Your task to perform on an android device: change text size in settings app Image 0: 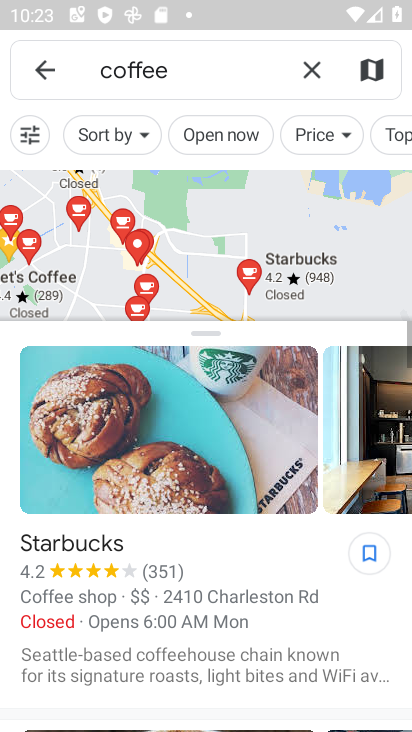
Step 0: press home button
Your task to perform on an android device: change text size in settings app Image 1: 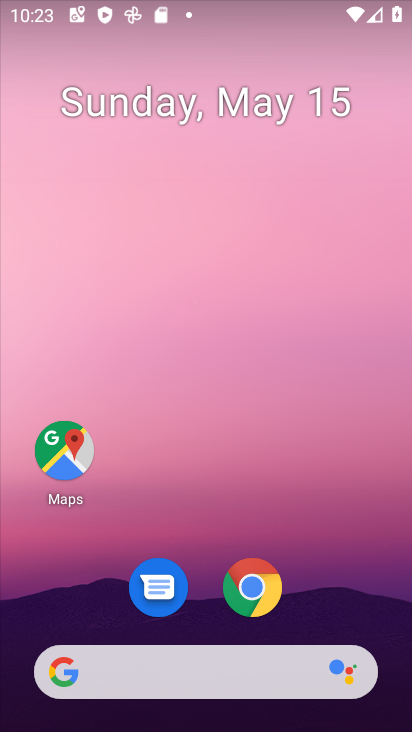
Step 1: drag from (373, 647) to (257, 38)
Your task to perform on an android device: change text size in settings app Image 2: 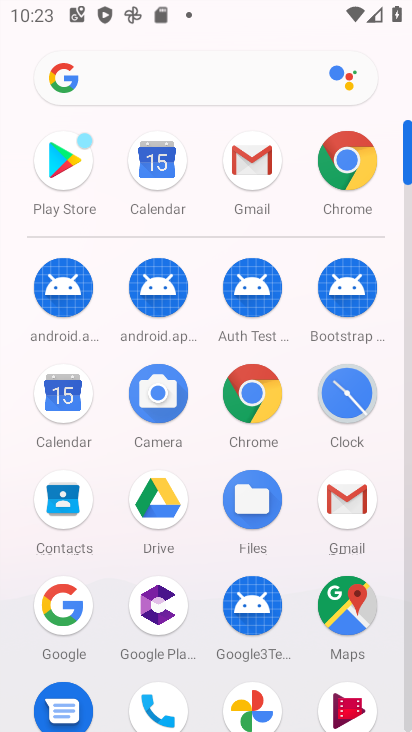
Step 2: drag from (303, 670) to (343, 201)
Your task to perform on an android device: change text size in settings app Image 3: 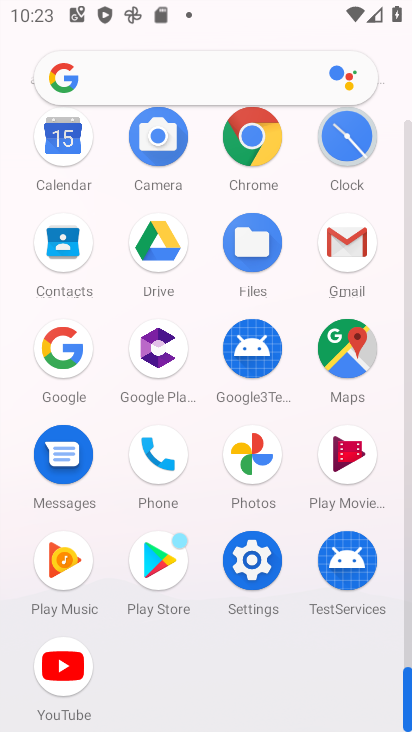
Step 3: click (250, 562)
Your task to perform on an android device: change text size in settings app Image 4: 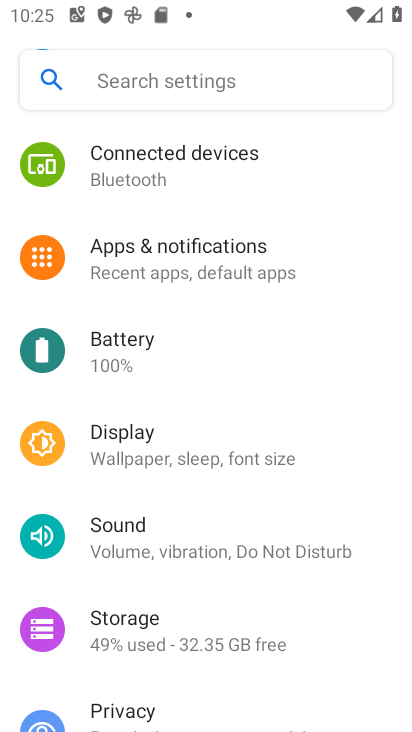
Step 4: click (130, 451)
Your task to perform on an android device: change text size in settings app Image 5: 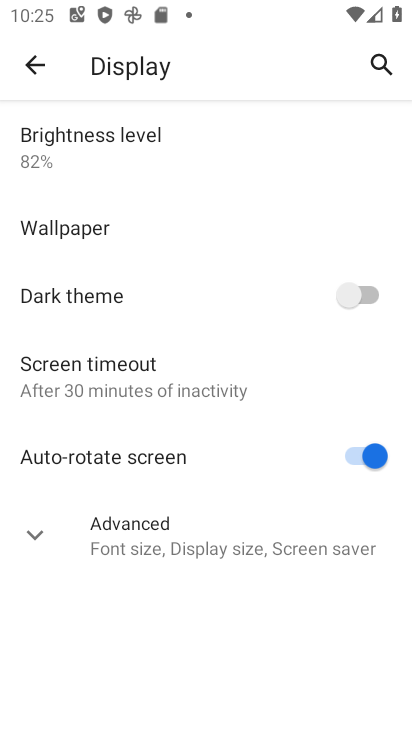
Step 5: click (107, 566)
Your task to perform on an android device: change text size in settings app Image 6: 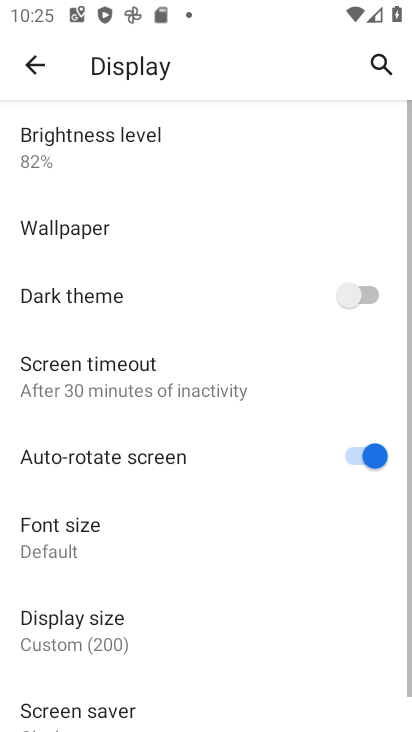
Step 6: click (107, 566)
Your task to perform on an android device: change text size in settings app Image 7: 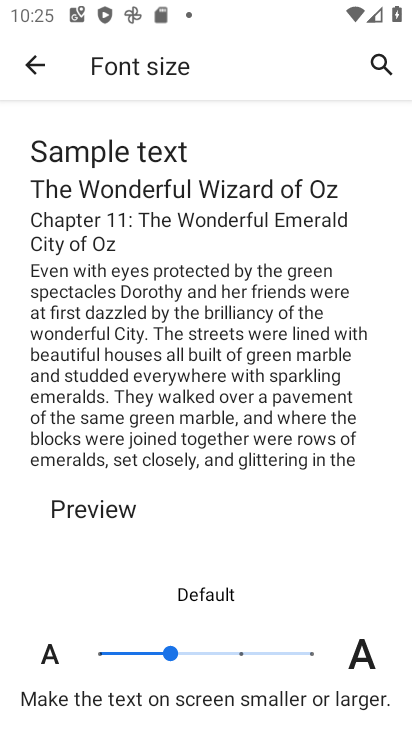
Step 7: click (237, 652)
Your task to perform on an android device: change text size in settings app Image 8: 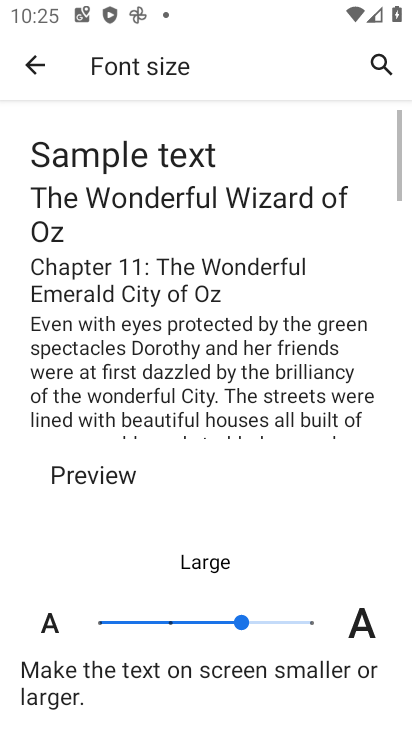
Step 8: task complete